Your task to perform on an android device: toggle show notifications on the lock screen Image 0: 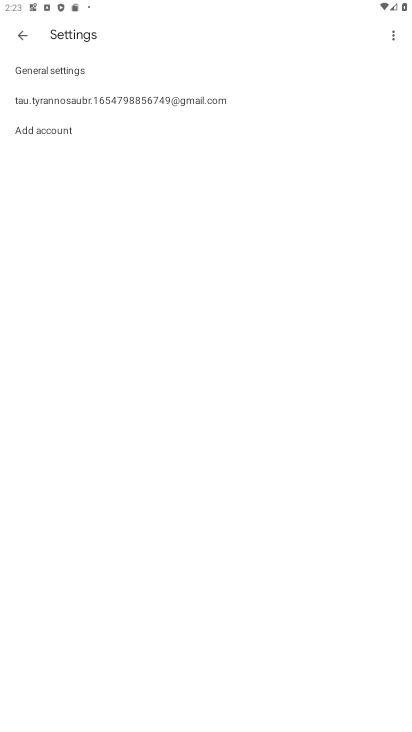
Step 0: press home button
Your task to perform on an android device: toggle show notifications on the lock screen Image 1: 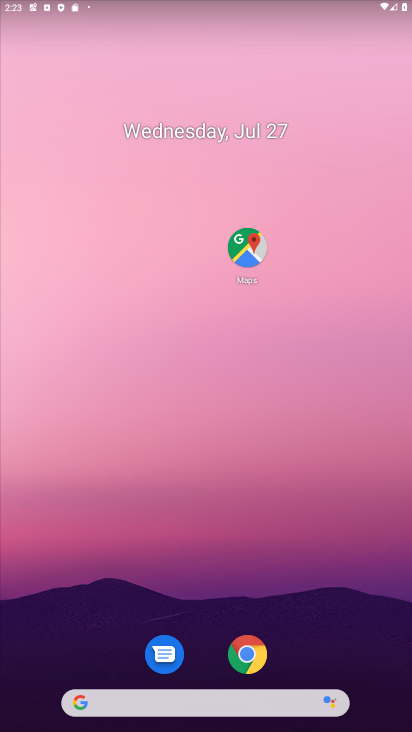
Step 1: drag from (78, 491) to (207, 129)
Your task to perform on an android device: toggle show notifications on the lock screen Image 2: 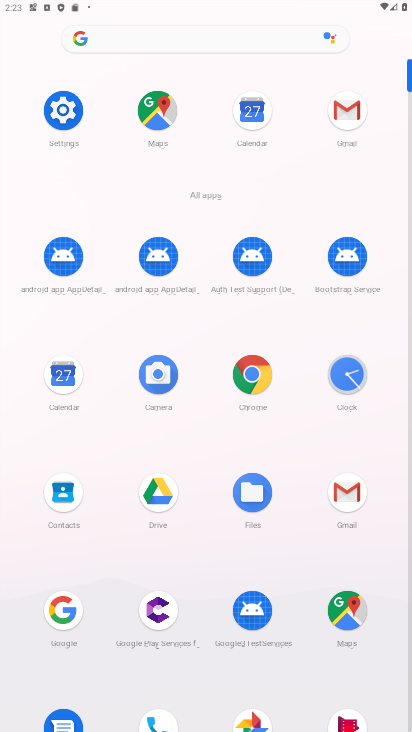
Step 2: click (76, 114)
Your task to perform on an android device: toggle show notifications on the lock screen Image 3: 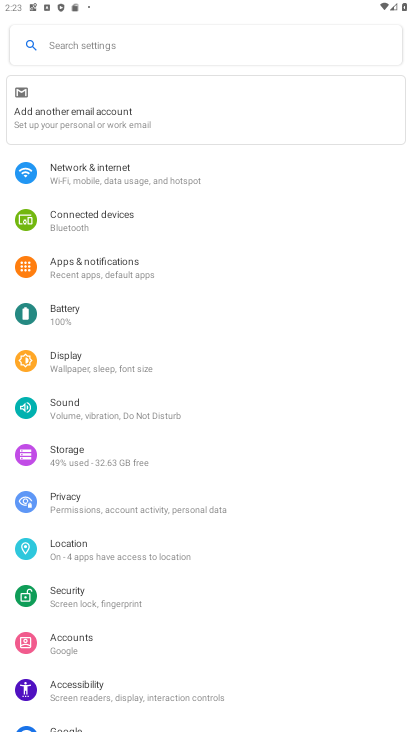
Step 3: click (100, 266)
Your task to perform on an android device: toggle show notifications on the lock screen Image 4: 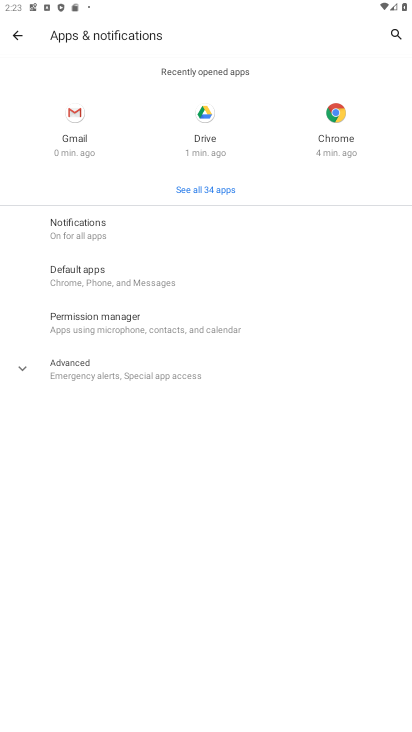
Step 4: click (132, 245)
Your task to perform on an android device: toggle show notifications on the lock screen Image 5: 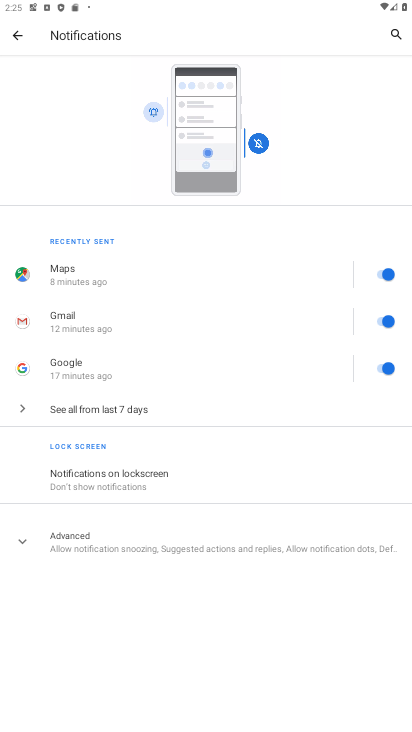
Step 5: click (209, 469)
Your task to perform on an android device: toggle show notifications on the lock screen Image 6: 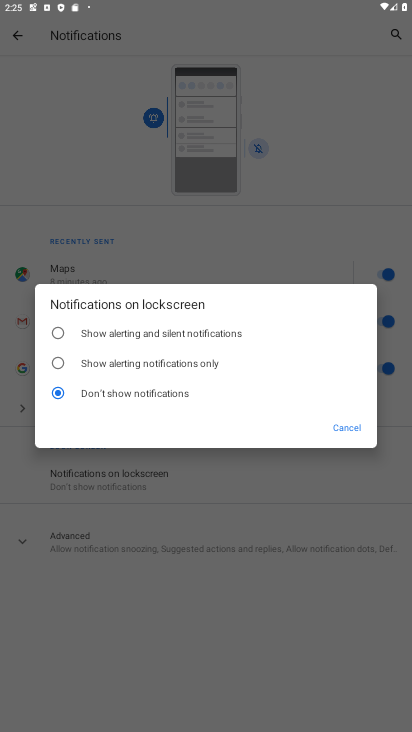
Step 6: click (93, 331)
Your task to perform on an android device: toggle show notifications on the lock screen Image 7: 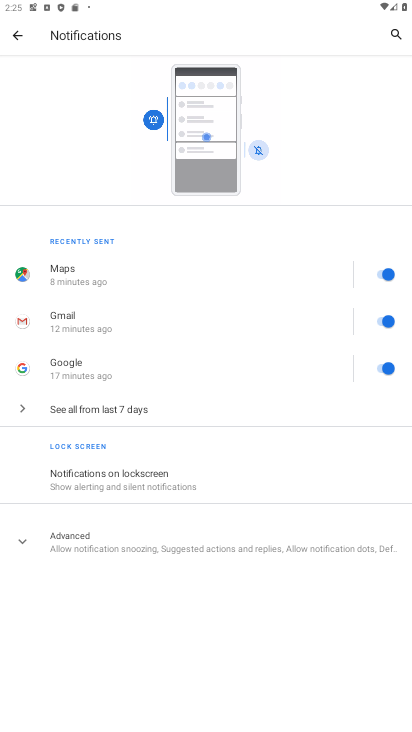
Step 7: task complete